Your task to perform on an android device: Toggle the flashlight Image 0: 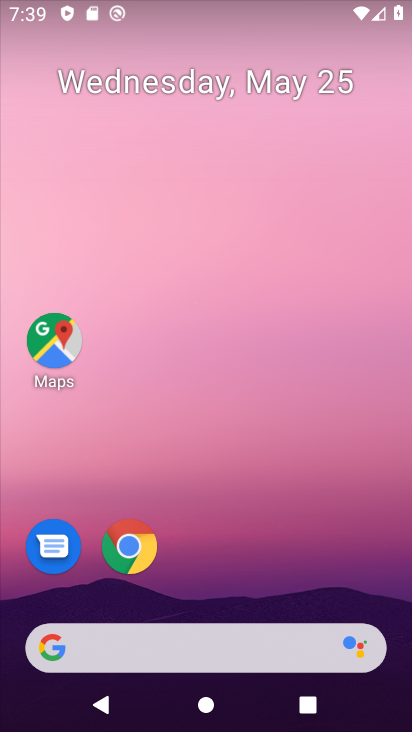
Step 0: drag from (204, 566) to (232, 50)
Your task to perform on an android device: Toggle the flashlight Image 1: 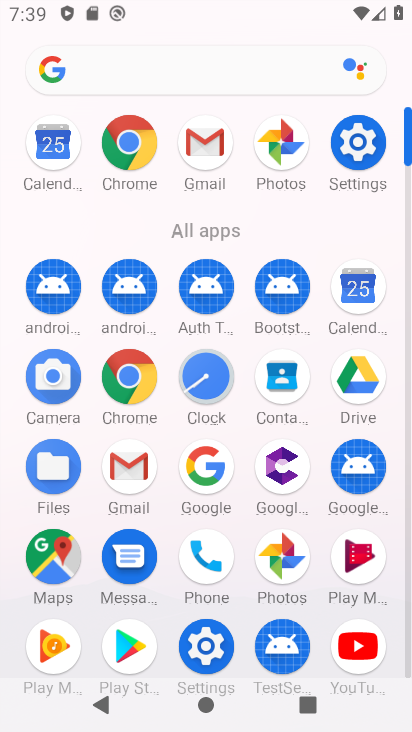
Step 1: task complete